Your task to perform on an android device: Open Youtube and go to the subscriptions tab Image 0: 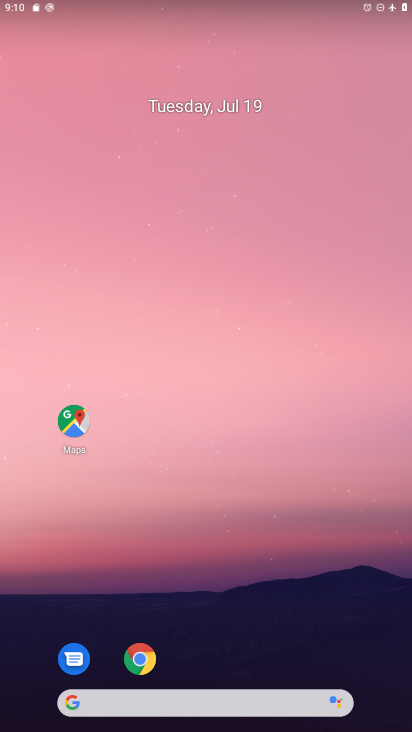
Step 0: drag from (238, 599) to (227, 251)
Your task to perform on an android device: Open Youtube and go to the subscriptions tab Image 1: 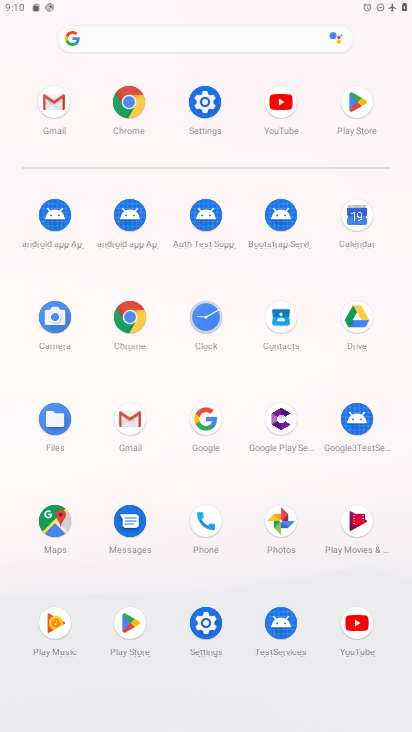
Step 1: click (355, 620)
Your task to perform on an android device: Open Youtube and go to the subscriptions tab Image 2: 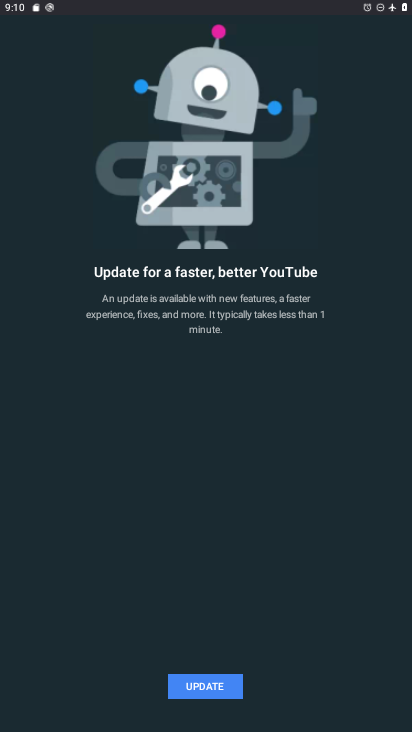
Step 2: task complete